Your task to perform on an android device: toggle notification dots Image 0: 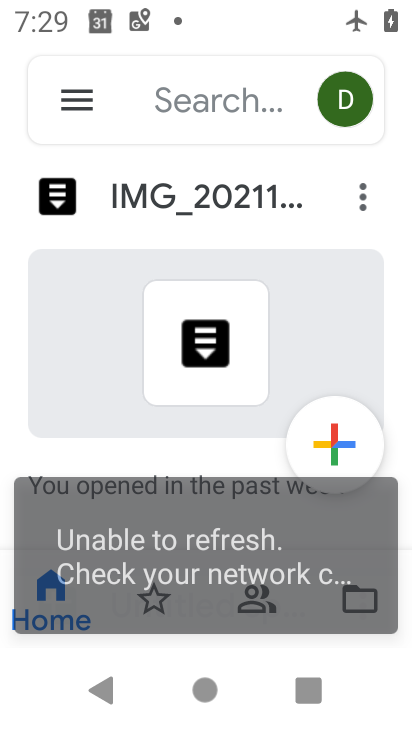
Step 0: press home button
Your task to perform on an android device: toggle notification dots Image 1: 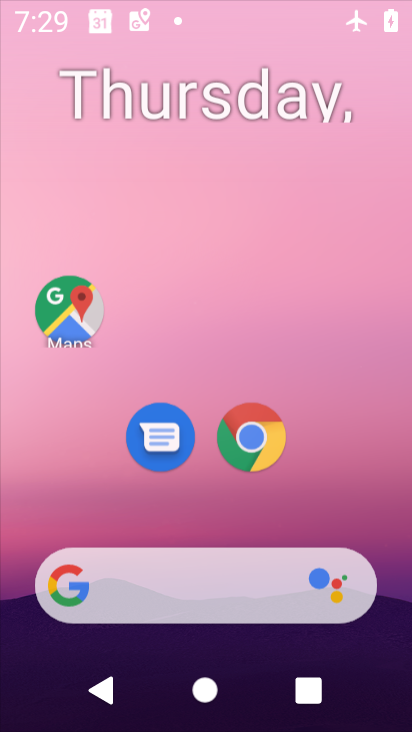
Step 1: drag from (355, 636) to (359, 60)
Your task to perform on an android device: toggle notification dots Image 2: 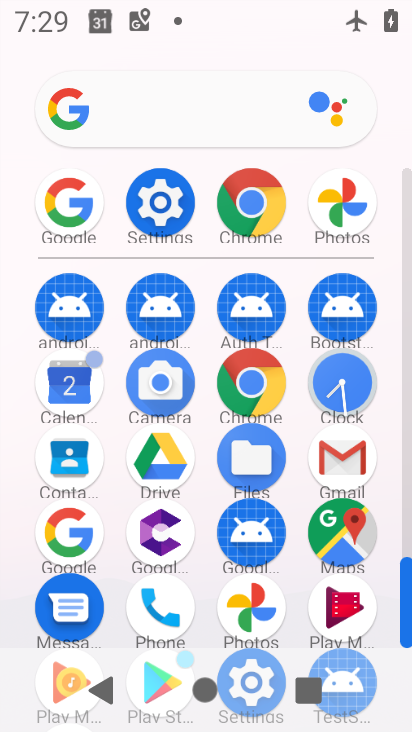
Step 2: click (119, 227)
Your task to perform on an android device: toggle notification dots Image 3: 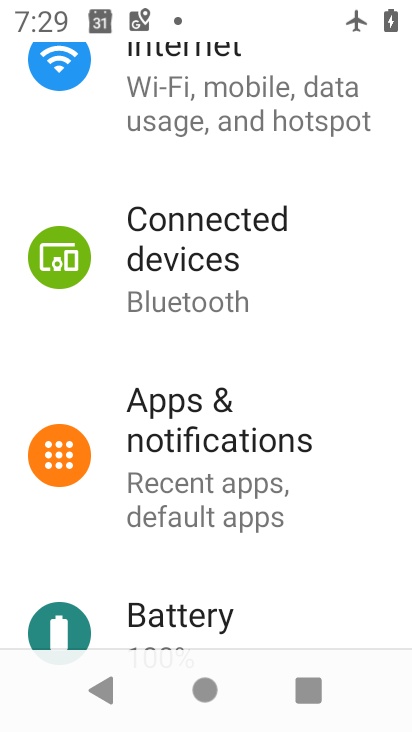
Step 3: click (283, 519)
Your task to perform on an android device: toggle notification dots Image 4: 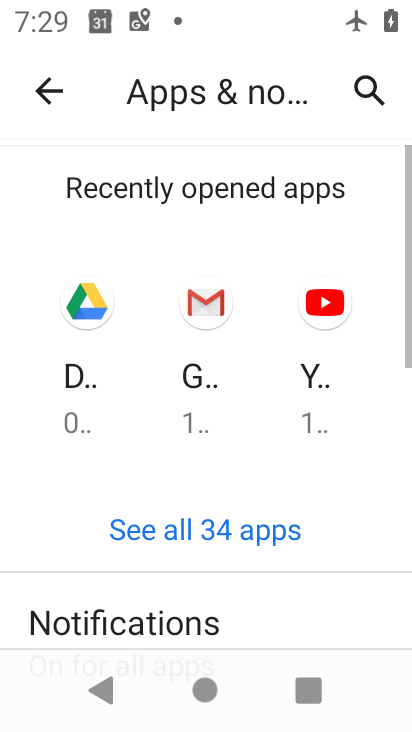
Step 4: drag from (245, 591) to (249, 12)
Your task to perform on an android device: toggle notification dots Image 5: 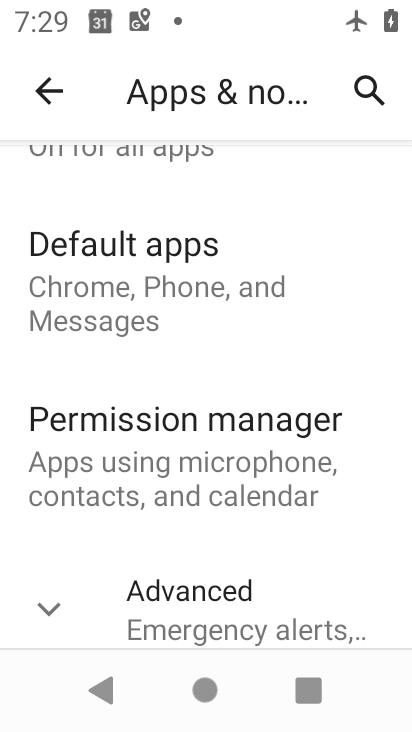
Step 5: click (233, 176)
Your task to perform on an android device: toggle notification dots Image 6: 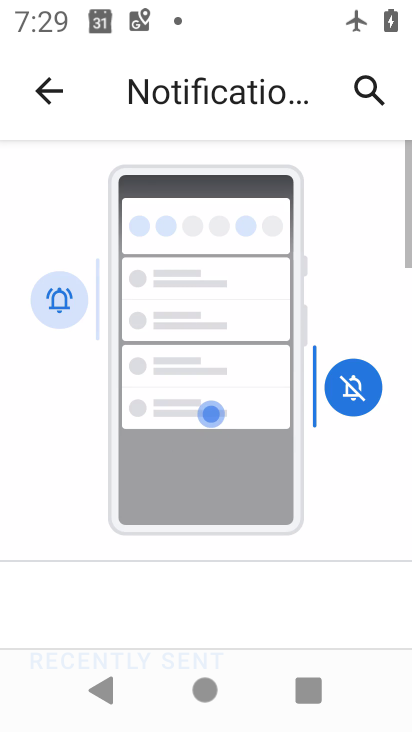
Step 6: drag from (260, 583) to (284, 73)
Your task to perform on an android device: toggle notification dots Image 7: 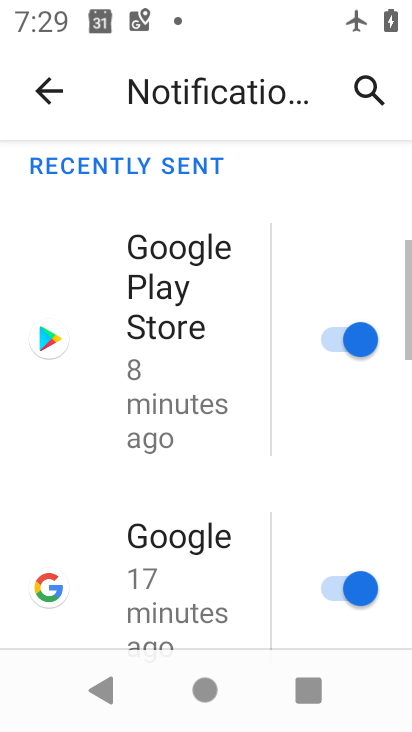
Step 7: drag from (246, 561) to (405, 579)
Your task to perform on an android device: toggle notification dots Image 8: 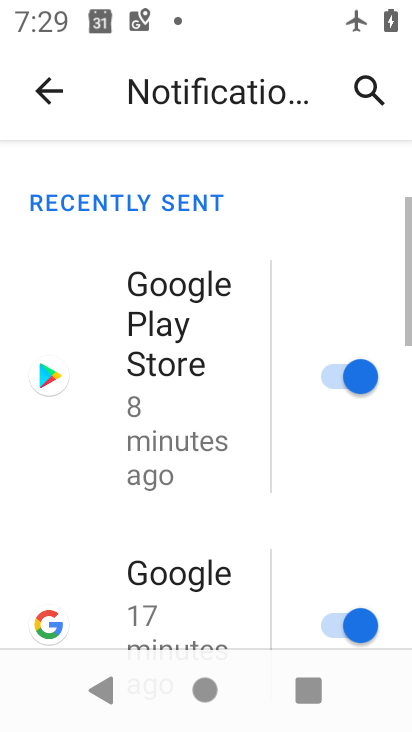
Step 8: drag from (319, 579) to (258, 56)
Your task to perform on an android device: toggle notification dots Image 9: 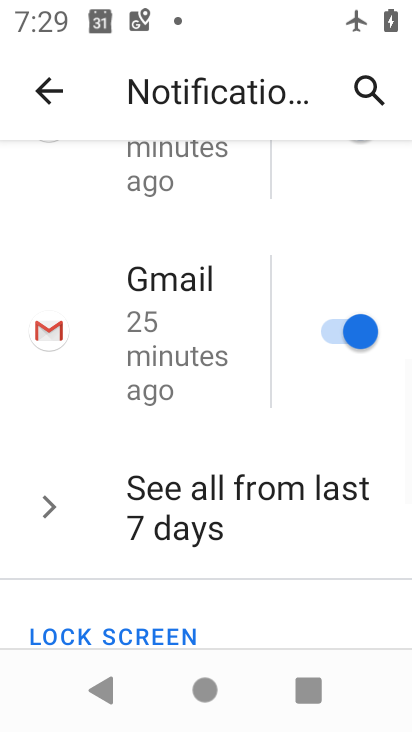
Step 9: drag from (266, 562) to (276, 15)
Your task to perform on an android device: toggle notification dots Image 10: 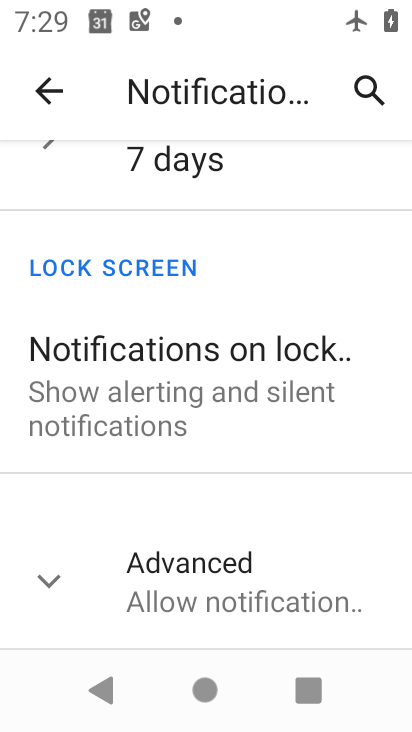
Step 10: click (274, 551)
Your task to perform on an android device: toggle notification dots Image 11: 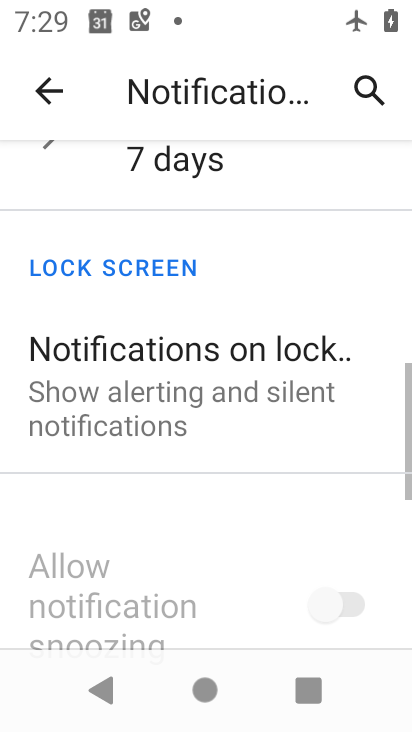
Step 11: drag from (266, 585) to (304, 32)
Your task to perform on an android device: toggle notification dots Image 12: 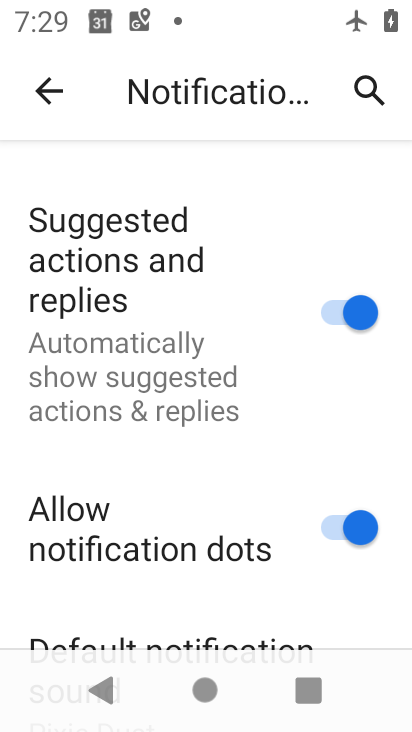
Step 12: click (315, 530)
Your task to perform on an android device: toggle notification dots Image 13: 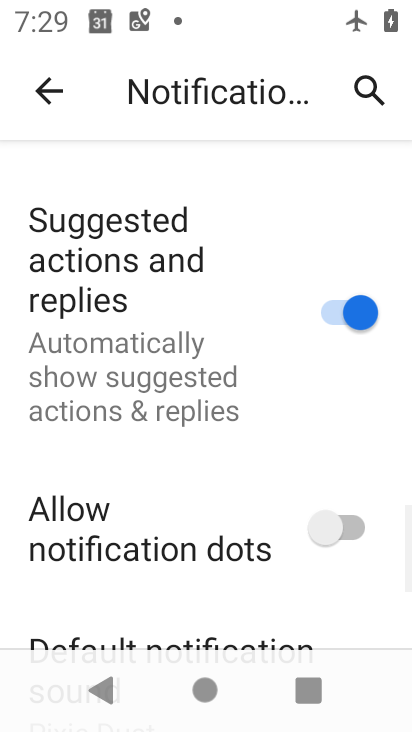
Step 13: task complete